Your task to perform on an android device: Open calendar and show me the third week of next month Image 0: 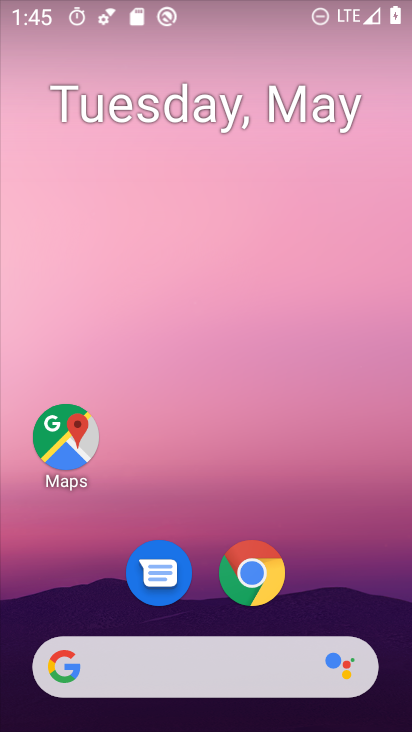
Step 0: drag from (375, 568) to (323, 0)
Your task to perform on an android device: Open calendar and show me the third week of next month Image 1: 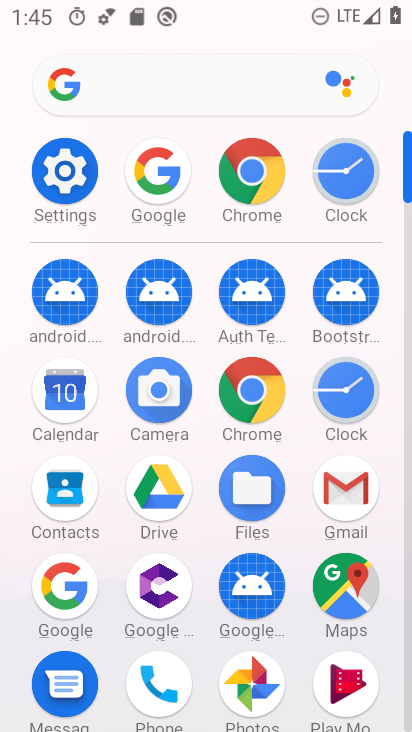
Step 1: click (57, 417)
Your task to perform on an android device: Open calendar and show me the third week of next month Image 2: 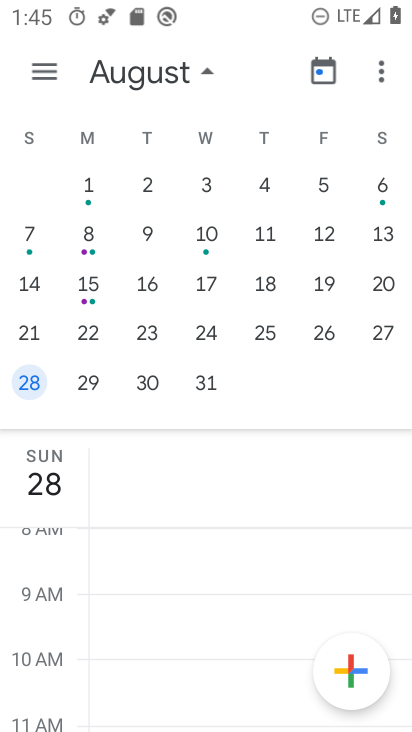
Step 2: drag from (339, 296) to (12, 226)
Your task to perform on an android device: Open calendar and show me the third week of next month Image 3: 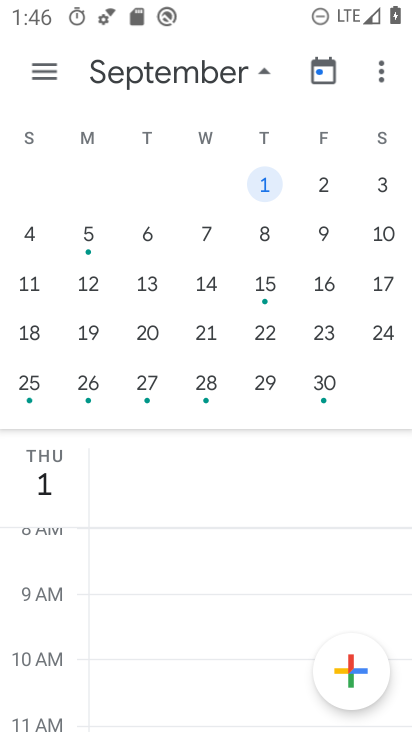
Step 3: click (209, 335)
Your task to perform on an android device: Open calendar and show me the third week of next month Image 4: 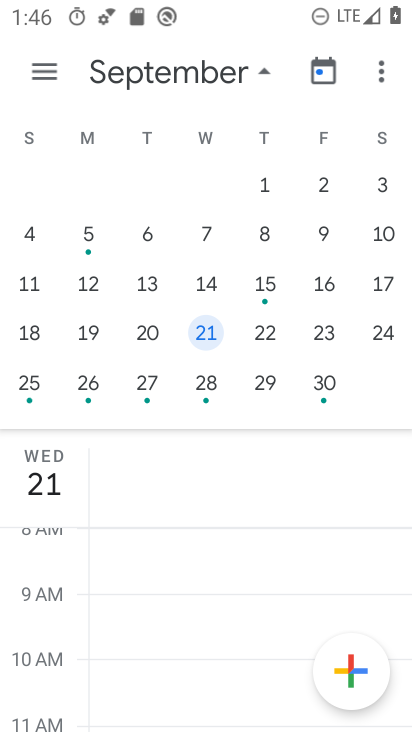
Step 4: task complete